Your task to perform on an android device: Go to Reddit.com Image 0: 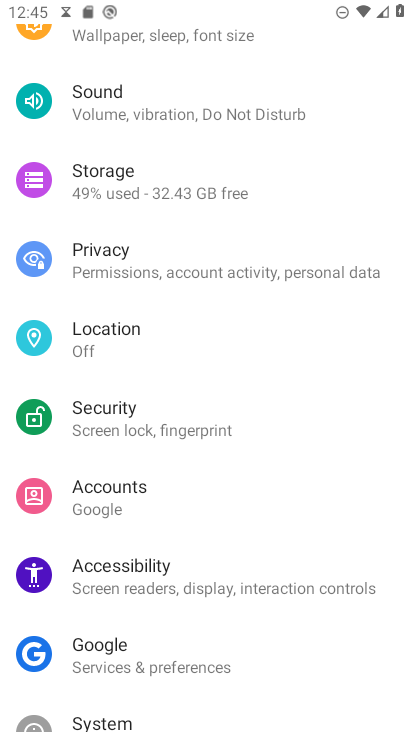
Step 0: press home button
Your task to perform on an android device: Go to Reddit.com Image 1: 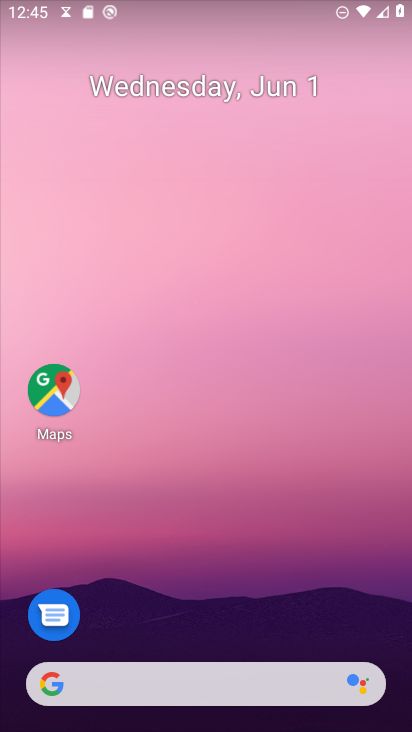
Step 1: drag from (255, 616) to (278, 179)
Your task to perform on an android device: Go to Reddit.com Image 2: 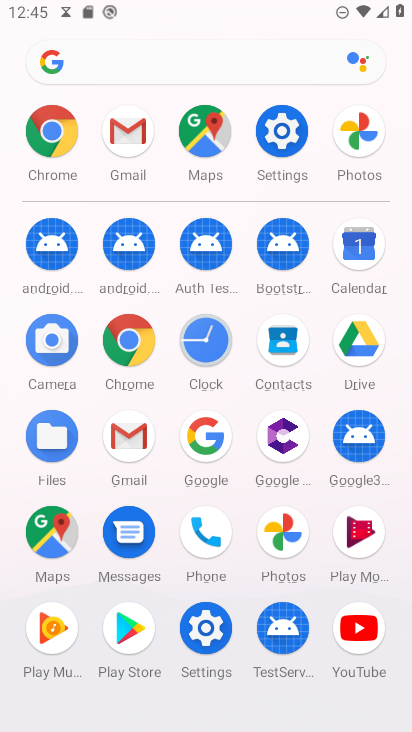
Step 2: click (74, 133)
Your task to perform on an android device: Go to Reddit.com Image 3: 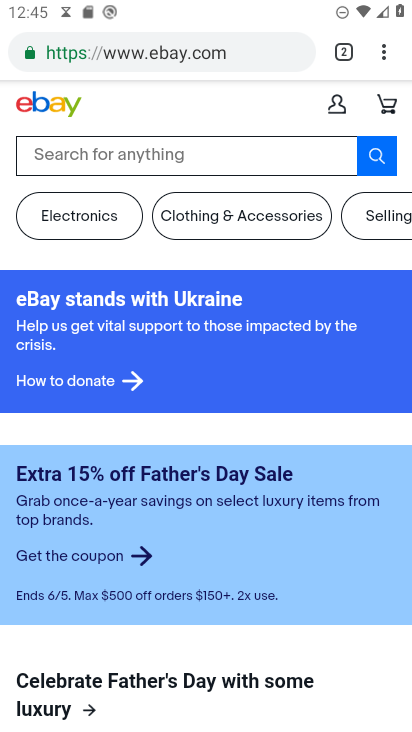
Step 3: click (317, 51)
Your task to perform on an android device: Go to Reddit.com Image 4: 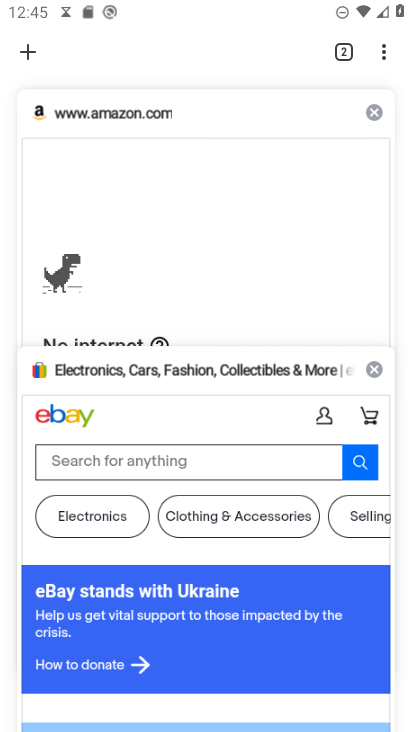
Step 4: click (195, 436)
Your task to perform on an android device: Go to Reddit.com Image 5: 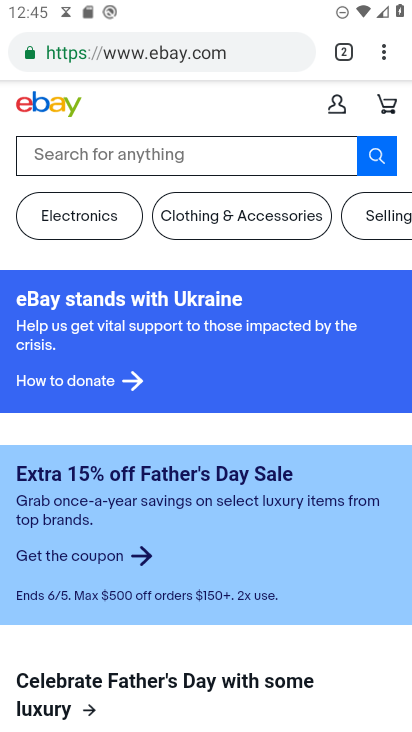
Step 5: click (252, 63)
Your task to perform on an android device: Go to Reddit.com Image 6: 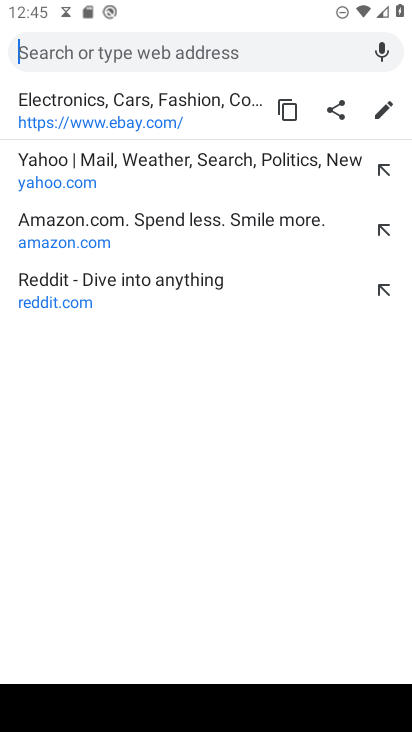
Step 6: type "reddit.com"
Your task to perform on an android device: Go to Reddit.com Image 7: 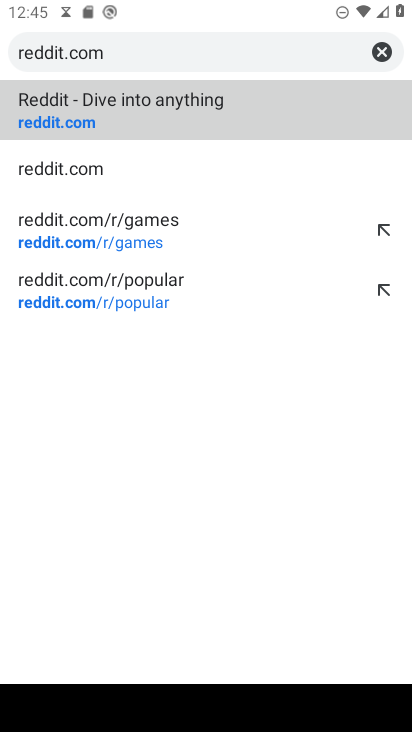
Step 7: type "reddit.com"
Your task to perform on an android device: Go to Reddit.com Image 8: 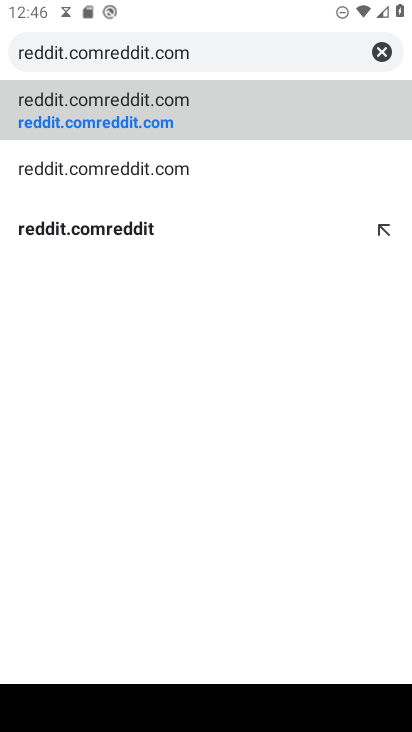
Step 8: click (188, 104)
Your task to perform on an android device: Go to Reddit.com Image 9: 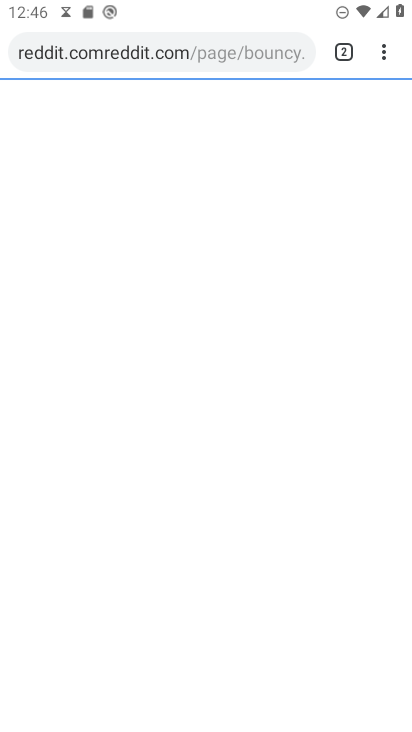
Step 9: click (290, 49)
Your task to perform on an android device: Go to Reddit.com Image 10: 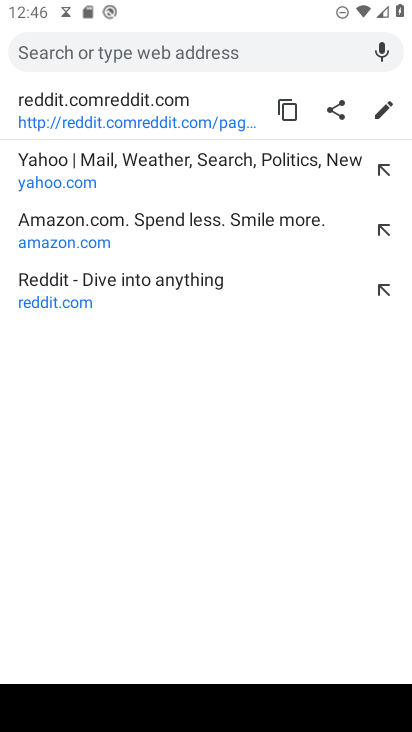
Step 10: type "reddit.com"
Your task to perform on an android device: Go to Reddit.com Image 11: 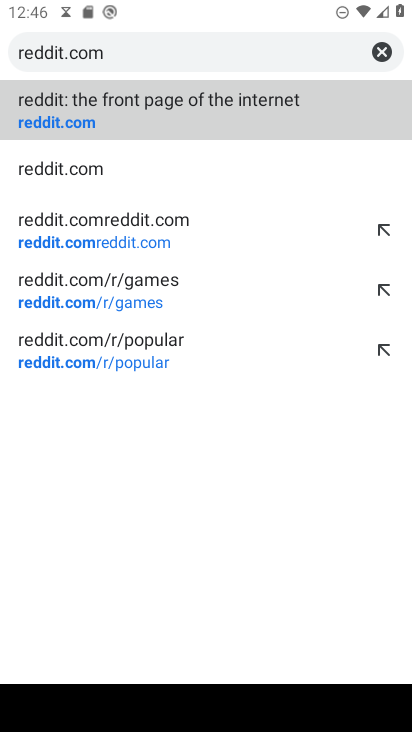
Step 11: click (108, 169)
Your task to perform on an android device: Go to Reddit.com Image 12: 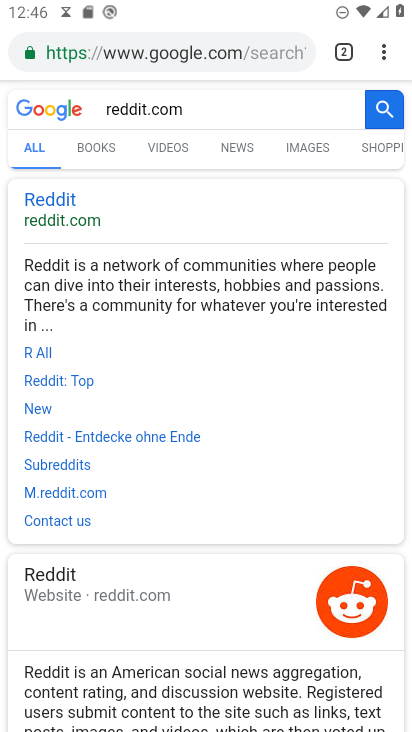
Step 12: click (58, 200)
Your task to perform on an android device: Go to Reddit.com Image 13: 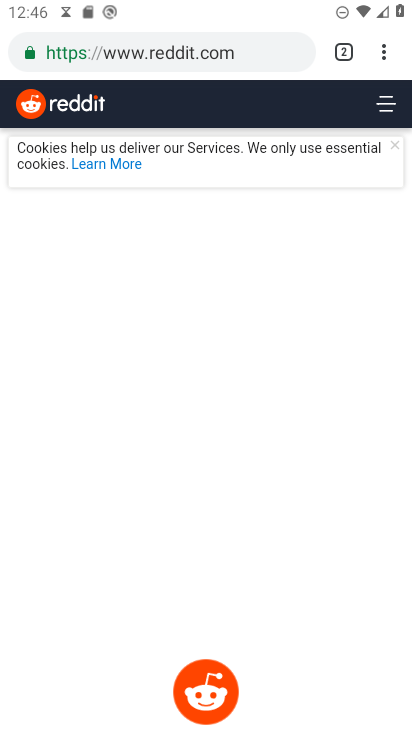
Step 13: task complete